Your task to perform on an android device: Open the Play Movies app and select the watchlist tab. Image 0: 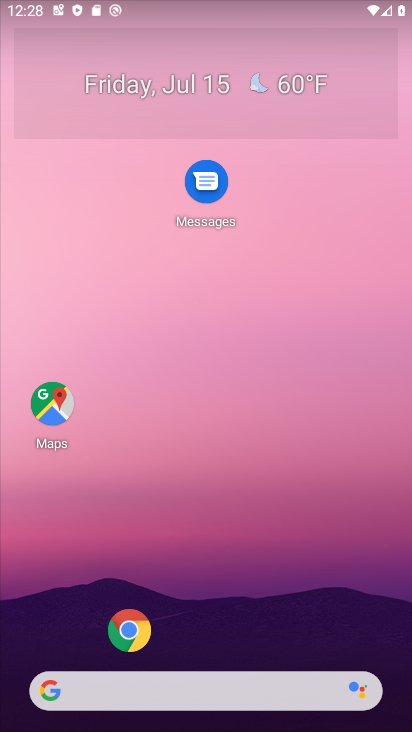
Step 0: drag from (22, 674) to (182, 67)
Your task to perform on an android device: Open the Play Movies app and select the watchlist tab. Image 1: 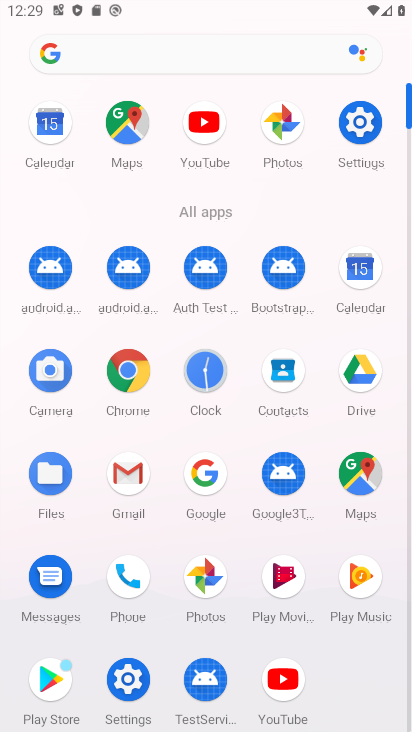
Step 1: click (284, 583)
Your task to perform on an android device: Open the Play Movies app and select the watchlist tab. Image 2: 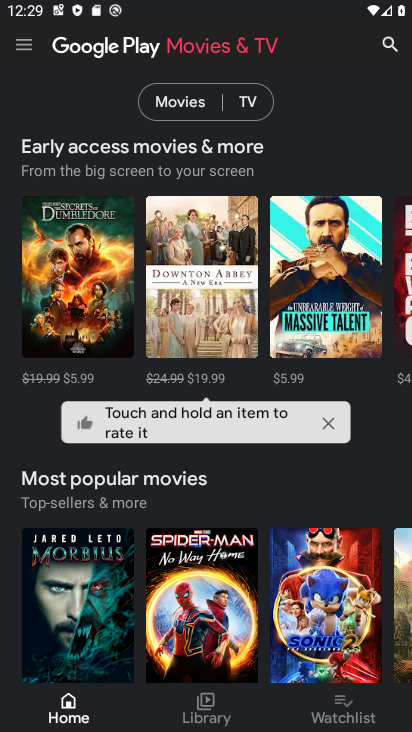
Step 2: click (346, 709)
Your task to perform on an android device: Open the Play Movies app and select the watchlist tab. Image 3: 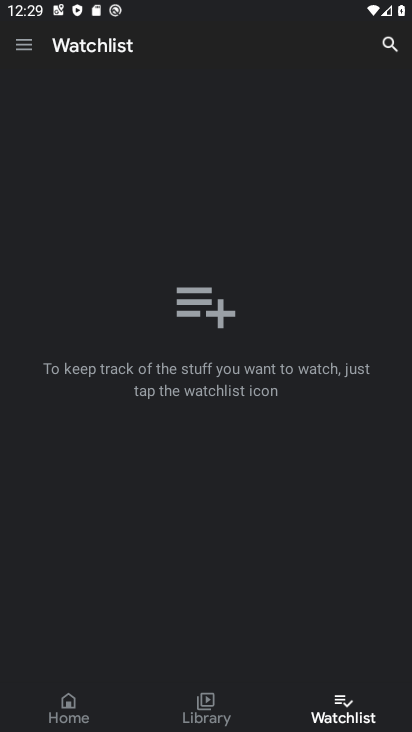
Step 3: task complete